Your task to perform on an android device: delete location history Image 0: 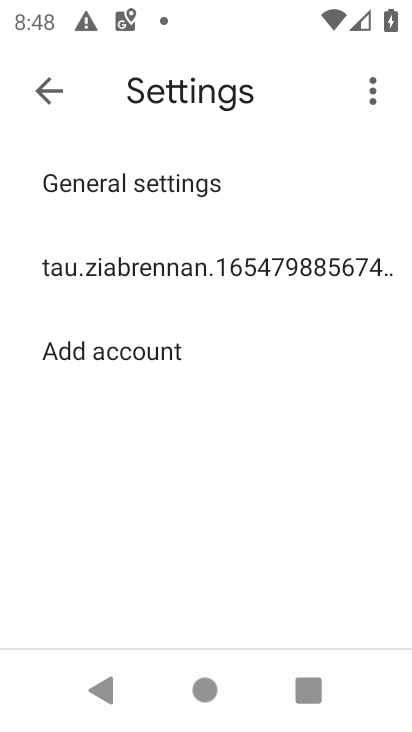
Step 0: press home button
Your task to perform on an android device: delete location history Image 1: 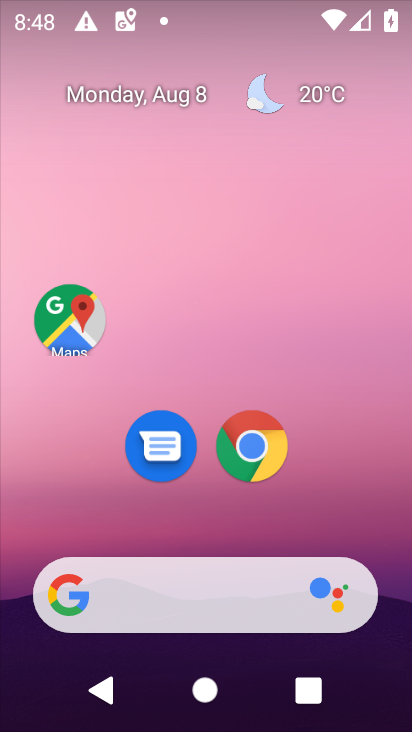
Step 1: click (74, 320)
Your task to perform on an android device: delete location history Image 2: 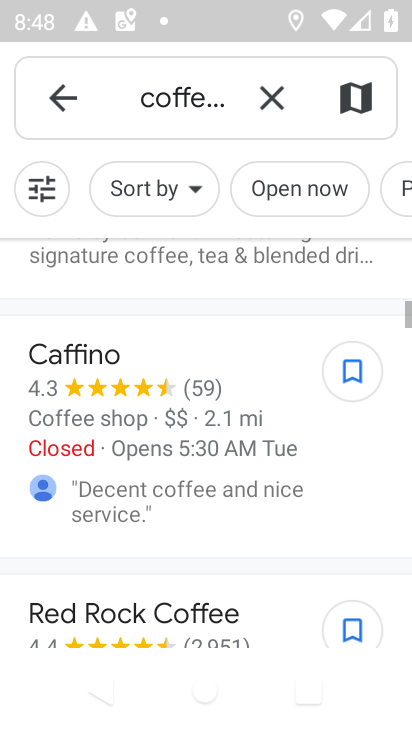
Step 2: click (273, 95)
Your task to perform on an android device: delete location history Image 3: 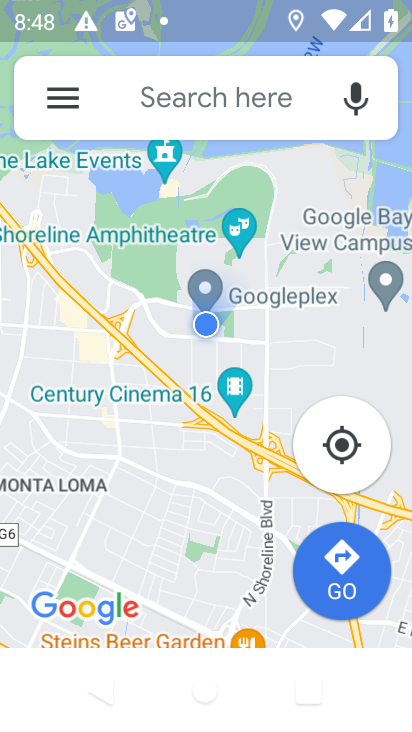
Step 3: click (57, 99)
Your task to perform on an android device: delete location history Image 4: 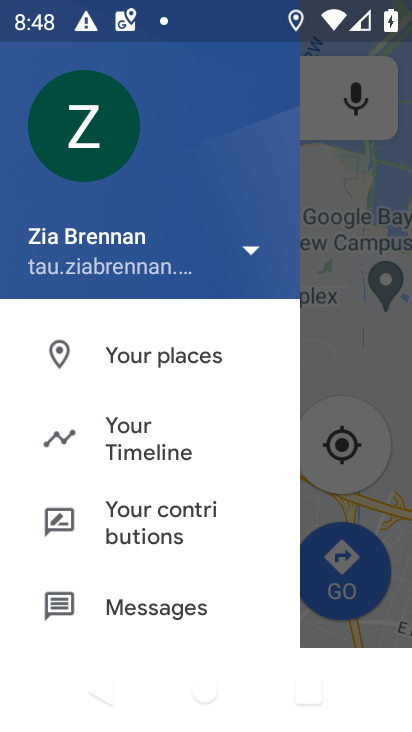
Step 4: drag from (236, 613) to (223, 146)
Your task to perform on an android device: delete location history Image 5: 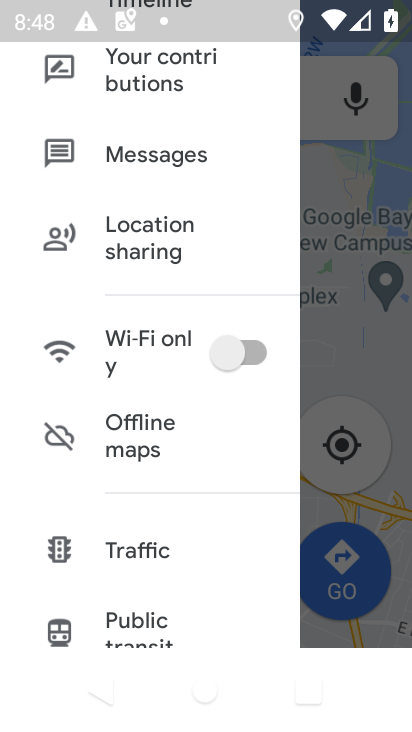
Step 5: drag from (204, 637) to (190, 280)
Your task to perform on an android device: delete location history Image 6: 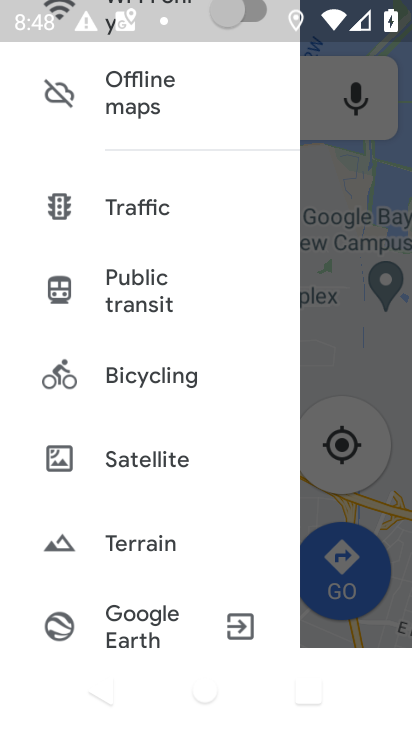
Step 6: drag from (210, 575) to (219, 312)
Your task to perform on an android device: delete location history Image 7: 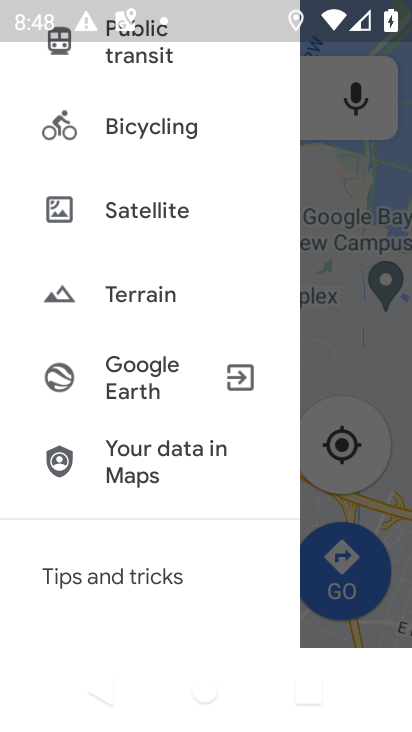
Step 7: drag from (212, 597) to (207, 258)
Your task to perform on an android device: delete location history Image 8: 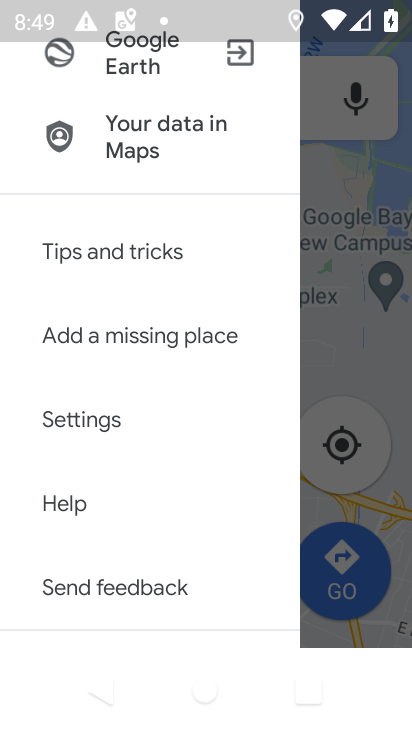
Step 8: click (65, 416)
Your task to perform on an android device: delete location history Image 9: 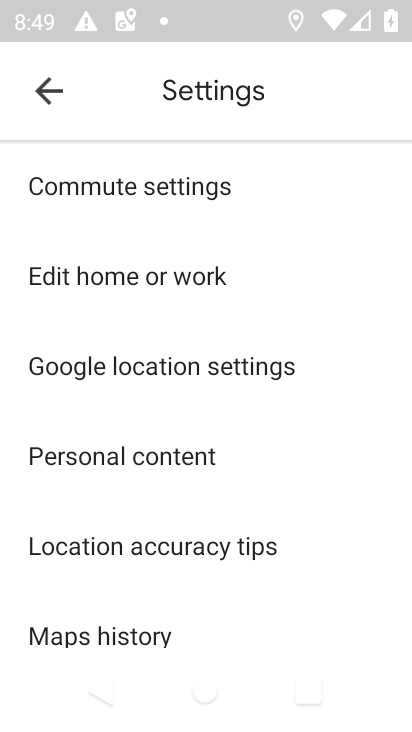
Step 9: click (82, 459)
Your task to perform on an android device: delete location history Image 10: 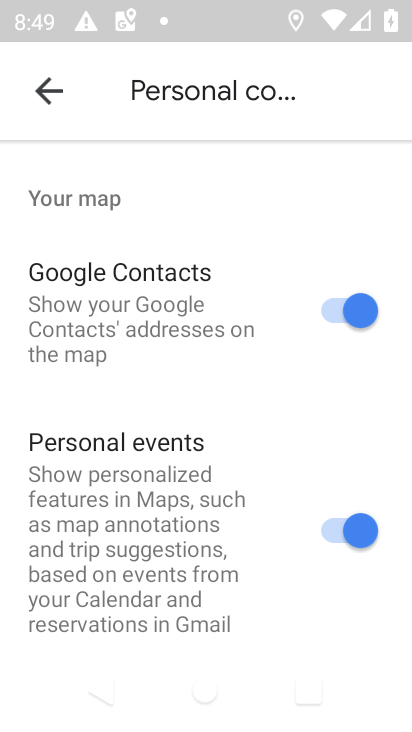
Step 10: drag from (263, 624) to (271, 174)
Your task to perform on an android device: delete location history Image 11: 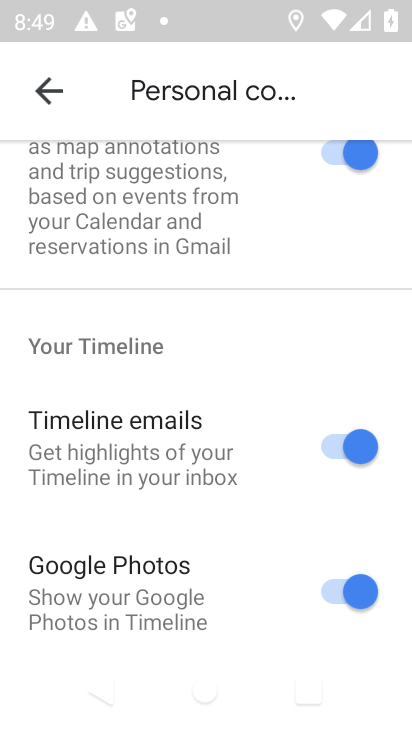
Step 11: drag from (258, 609) to (253, 216)
Your task to perform on an android device: delete location history Image 12: 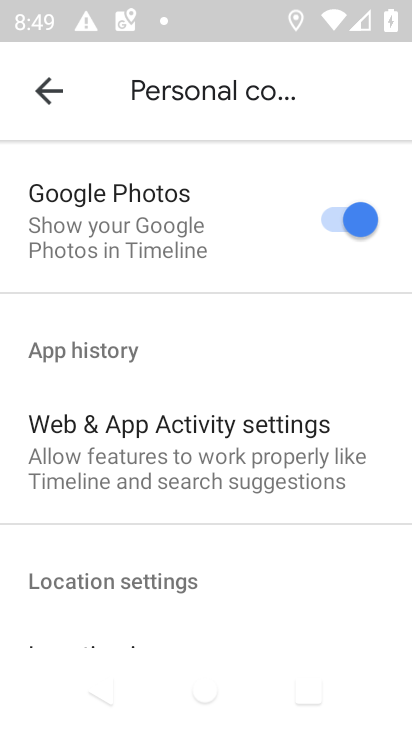
Step 12: drag from (247, 506) to (240, 184)
Your task to perform on an android device: delete location history Image 13: 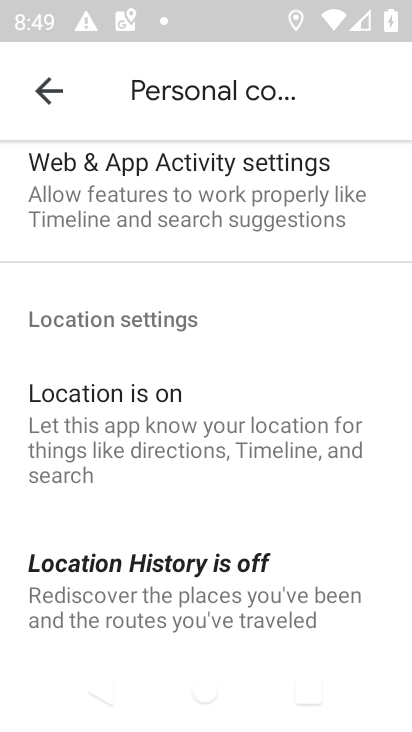
Step 13: drag from (252, 550) to (253, 188)
Your task to perform on an android device: delete location history Image 14: 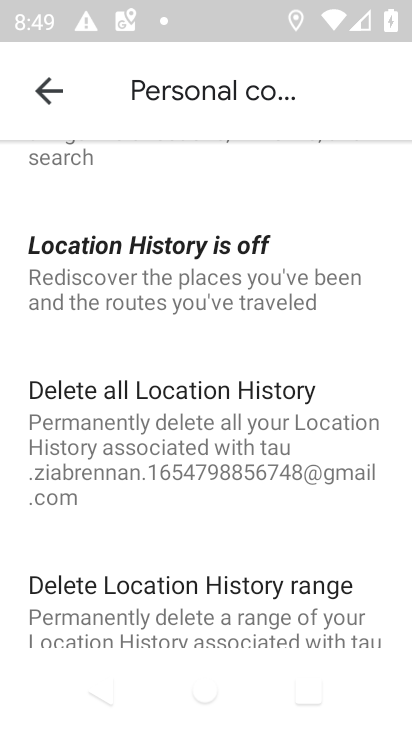
Step 14: click (121, 442)
Your task to perform on an android device: delete location history Image 15: 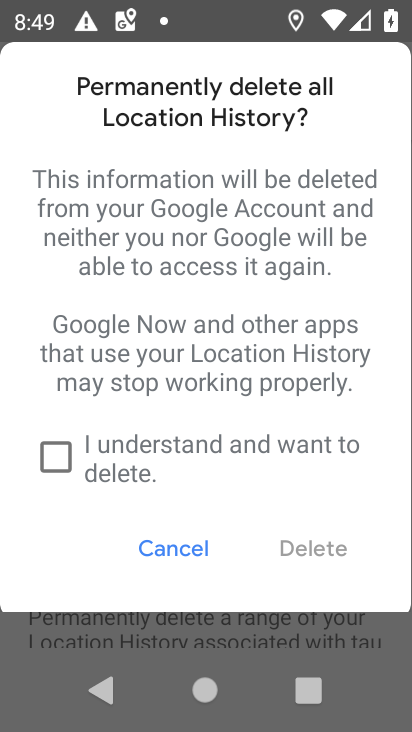
Step 15: click (63, 463)
Your task to perform on an android device: delete location history Image 16: 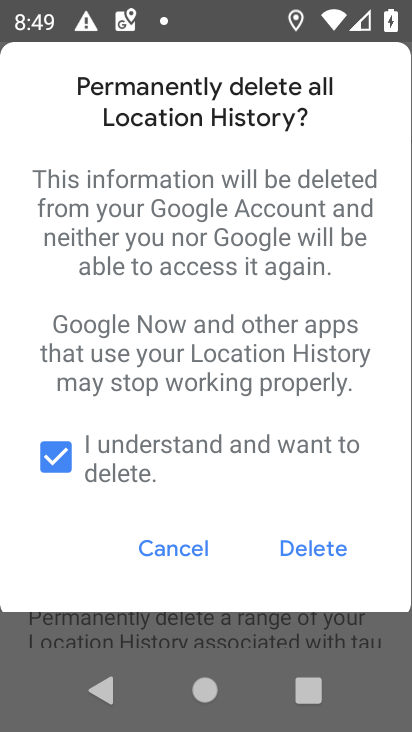
Step 16: click (313, 553)
Your task to perform on an android device: delete location history Image 17: 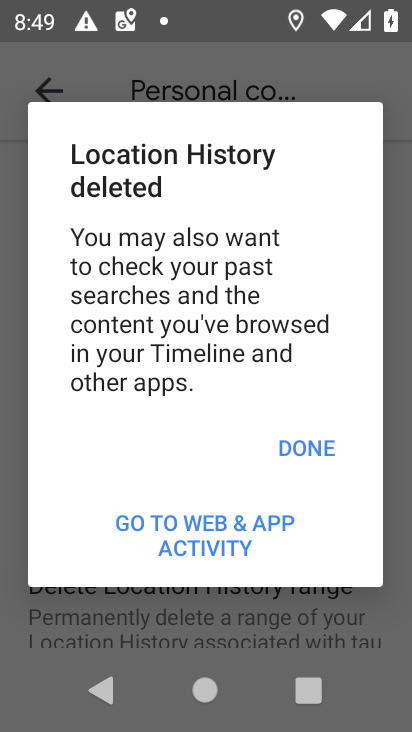
Step 17: click (299, 440)
Your task to perform on an android device: delete location history Image 18: 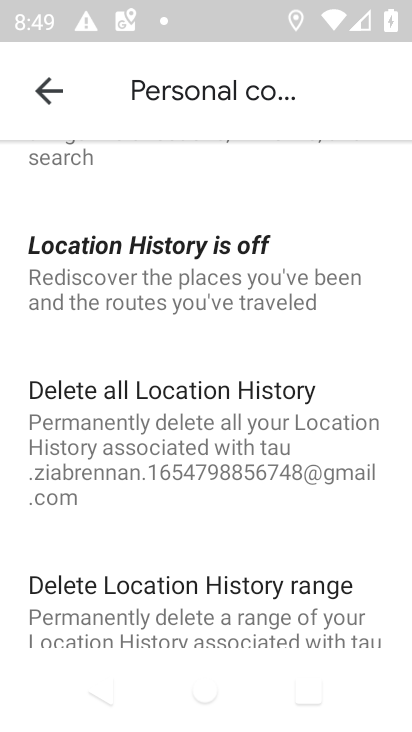
Step 18: task complete